Your task to perform on an android device: Find coffee shops on Maps Image 0: 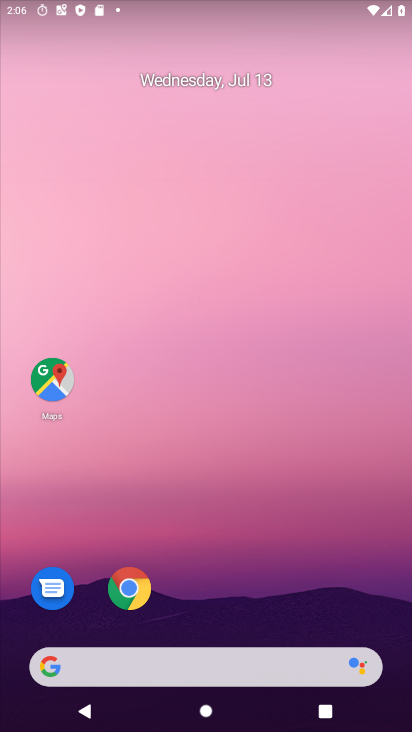
Step 0: click (50, 377)
Your task to perform on an android device: Find coffee shops on Maps Image 1: 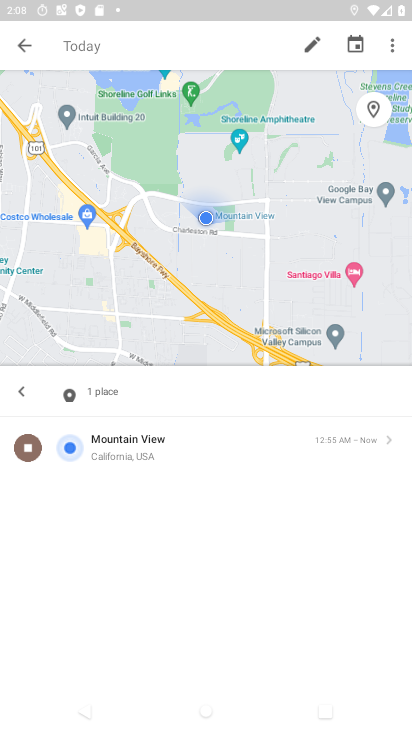
Step 1: click (17, 50)
Your task to perform on an android device: Find coffee shops on Maps Image 2: 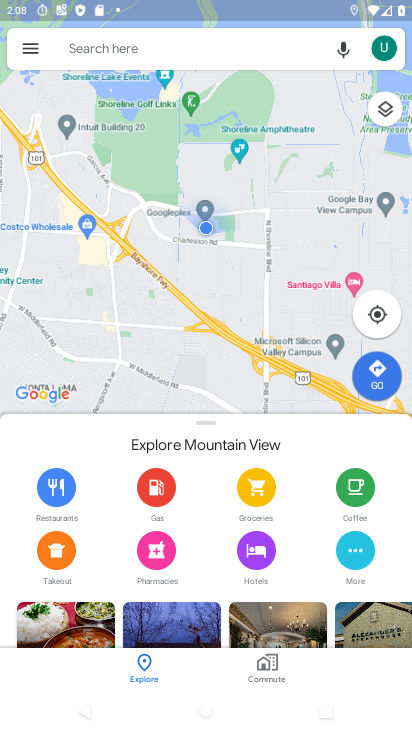
Step 2: click (110, 49)
Your task to perform on an android device: Find coffee shops on Maps Image 3: 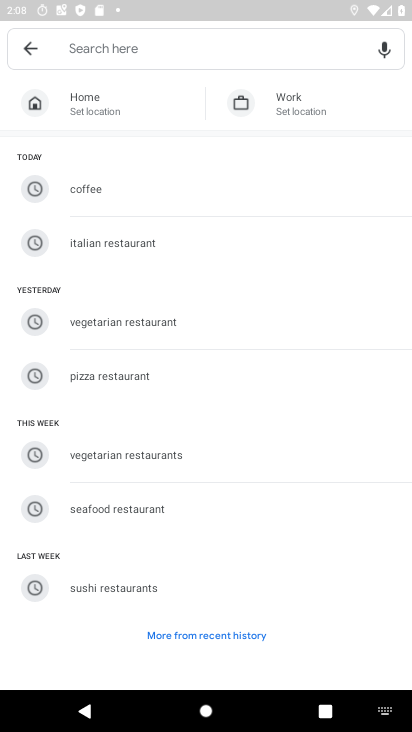
Step 3: click (79, 194)
Your task to perform on an android device: Find coffee shops on Maps Image 4: 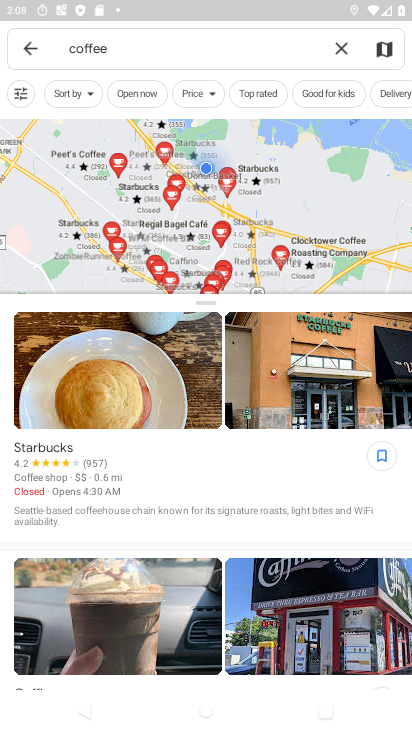
Step 4: task complete